Your task to perform on an android device: add a contact in the contacts app Image 0: 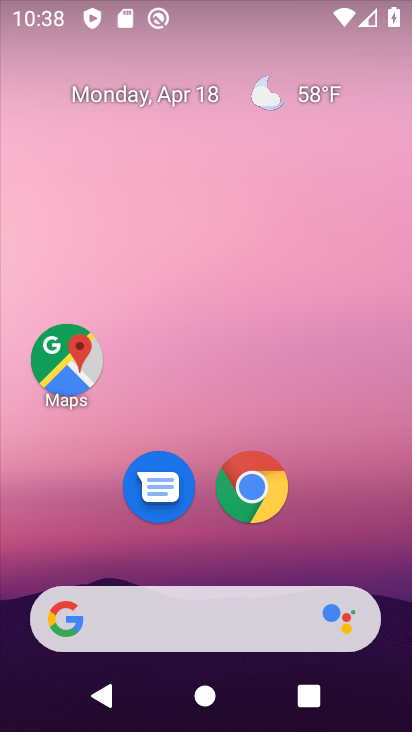
Step 0: drag from (362, 525) to (321, 75)
Your task to perform on an android device: add a contact in the contacts app Image 1: 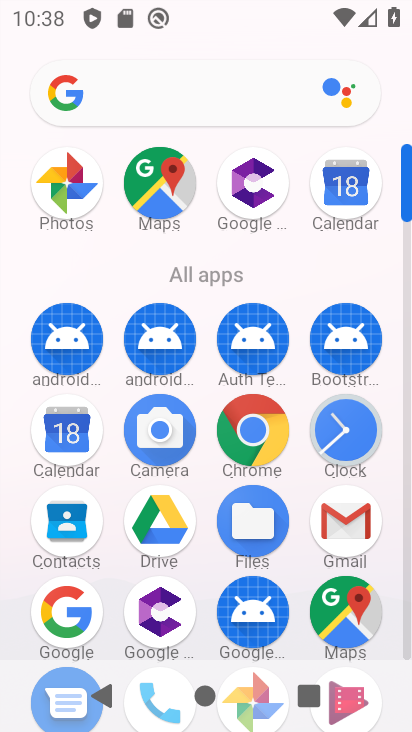
Step 1: click (67, 519)
Your task to perform on an android device: add a contact in the contacts app Image 2: 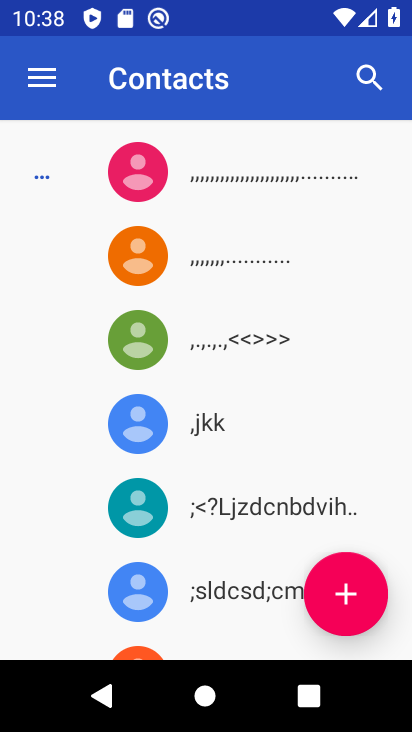
Step 2: click (346, 602)
Your task to perform on an android device: add a contact in the contacts app Image 3: 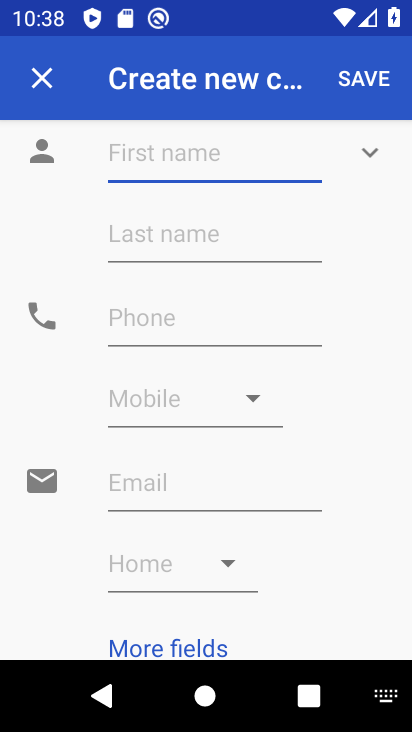
Step 3: type "ii"
Your task to perform on an android device: add a contact in the contacts app Image 4: 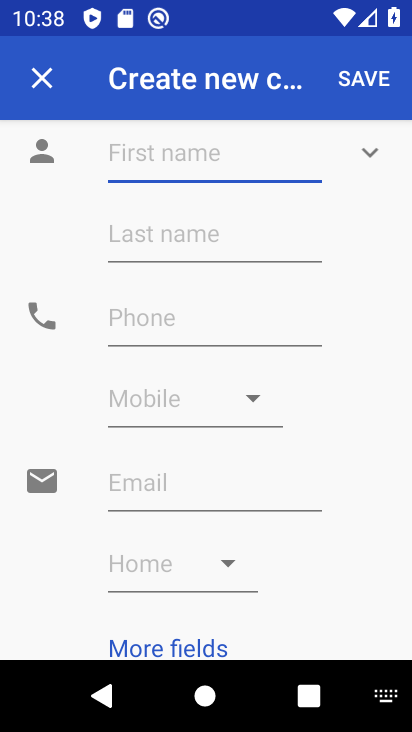
Step 4: click (198, 321)
Your task to perform on an android device: add a contact in the contacts app Image 5: 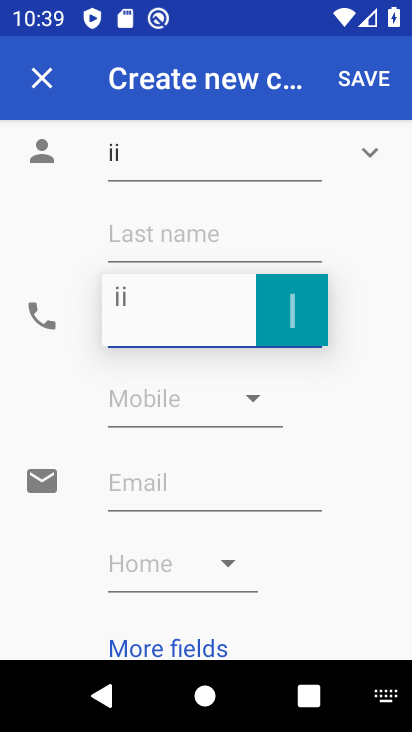
Step 5: type "9090909090"
Your task to perform on an android device: add a contact in the contacts app Image 6: 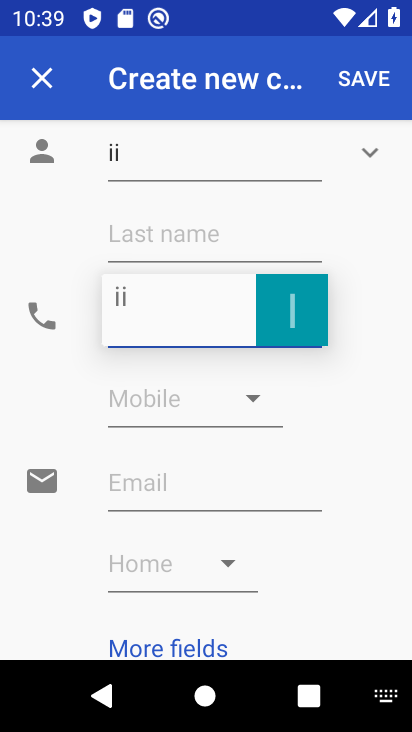
Step 6: click (375, 86)
Your task to perform on an android device: add a contact in the contacts app Image 7: 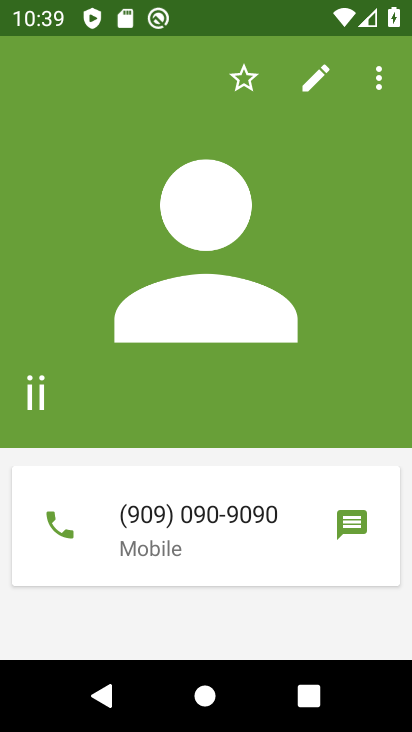
Step 7: task complete